Your task to perform on an android device: Open Google Chrome and click the shortcut for Amazon.com Image 0: 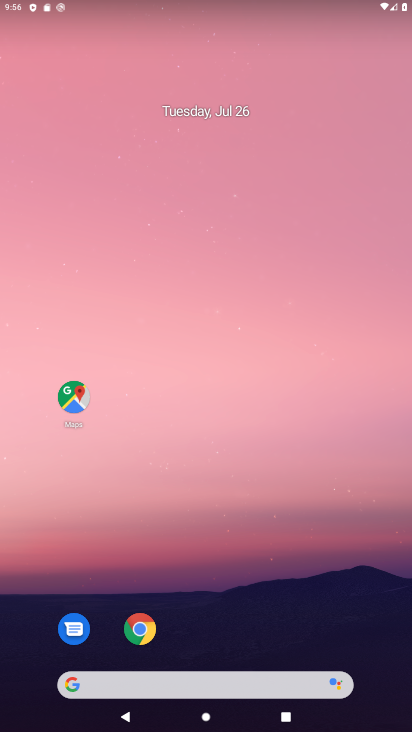
Step 0: click (145, 635)
Your task to perform on an android device: Open Google Chrome and click the shortcut for Amazon.com Image 1: 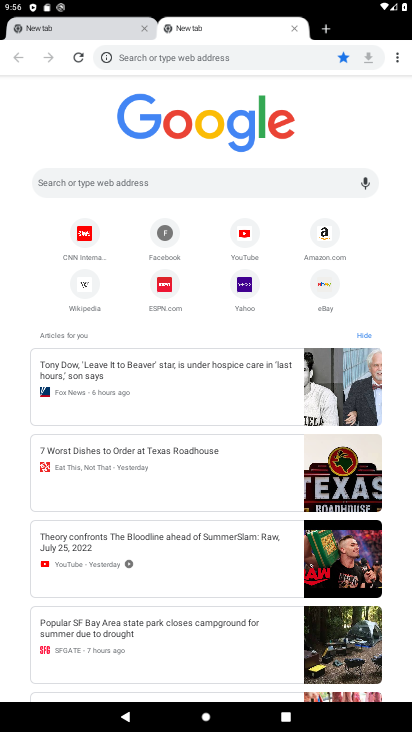
Step 1: click (307, 243)
Your task to perform on an android device: Open Google Chrome and click the shortcut for Amazon.com Image 2: 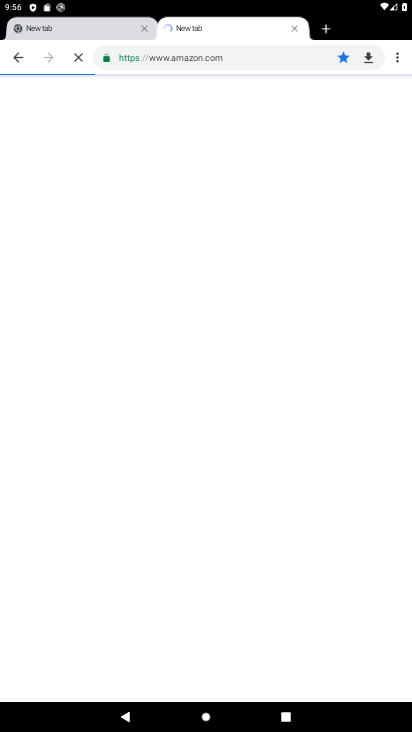
Step 2: task complete